Your task to perform on an android device: What's the news in the Philippines? Image 0: 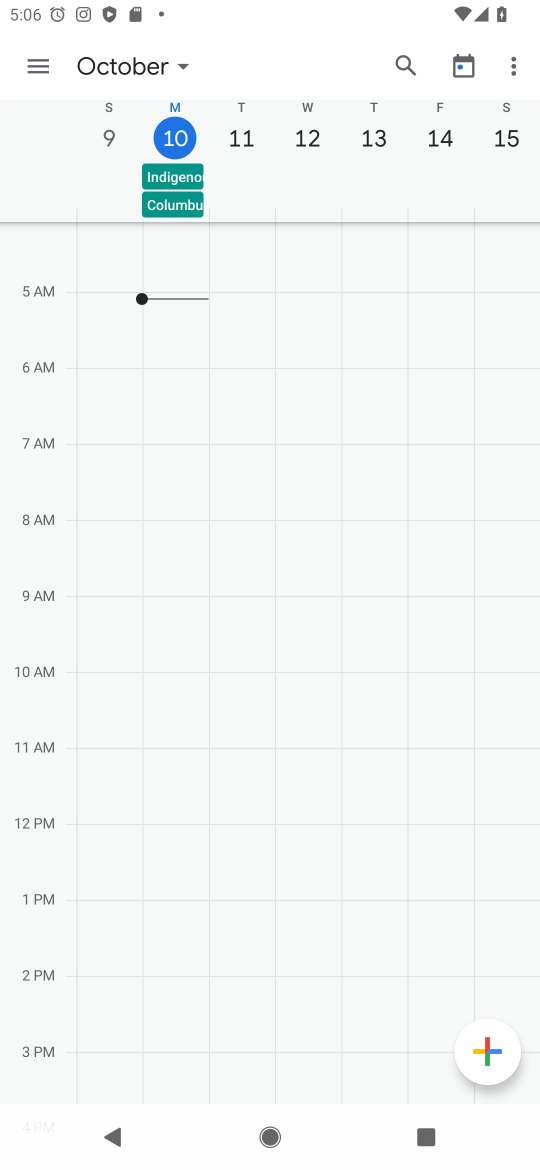
Step 0: press home button
Your task to perform on an android device: What's the news in the Philippines? Image 1: 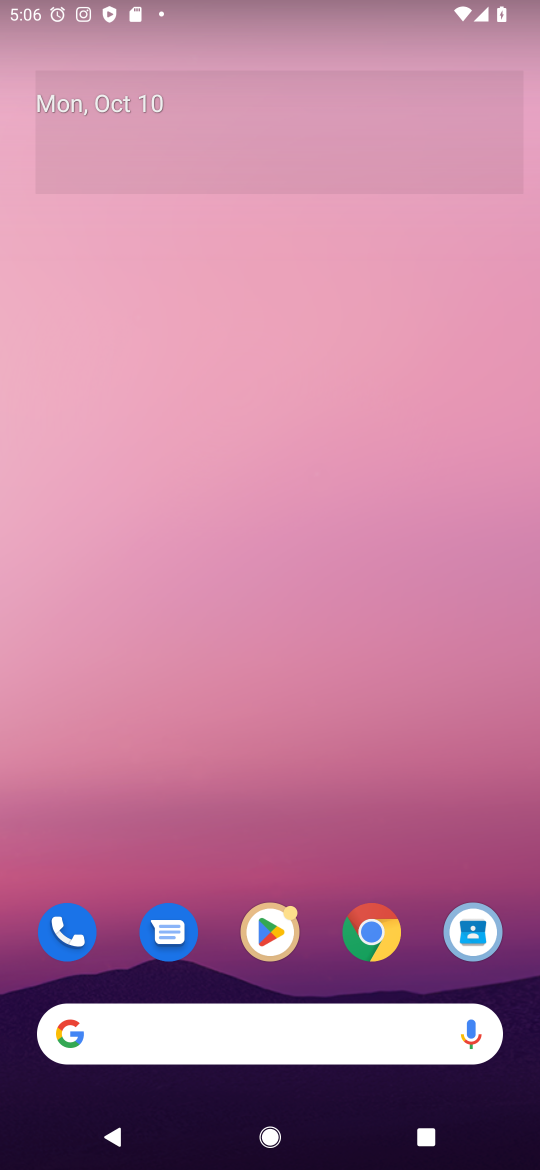
Step 1: click (303, 1036)
Your task to perform on an android device: What's the news in the Philippines? Image 2: 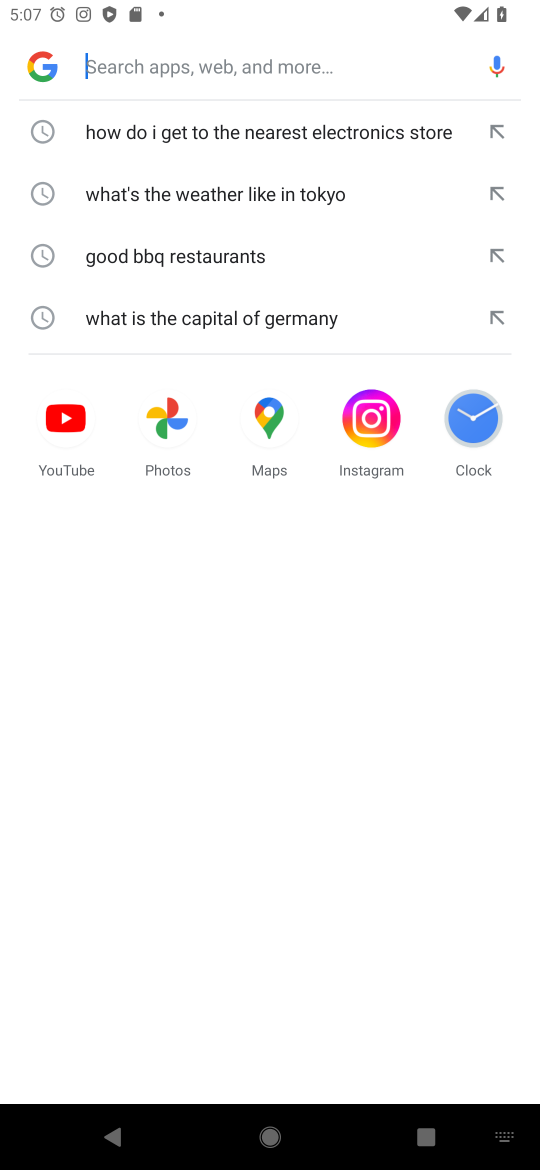
Step 2: type "What's the news in the Philippines"
Your task to perform on an android device: What's the news in the Philippines? Image 3: 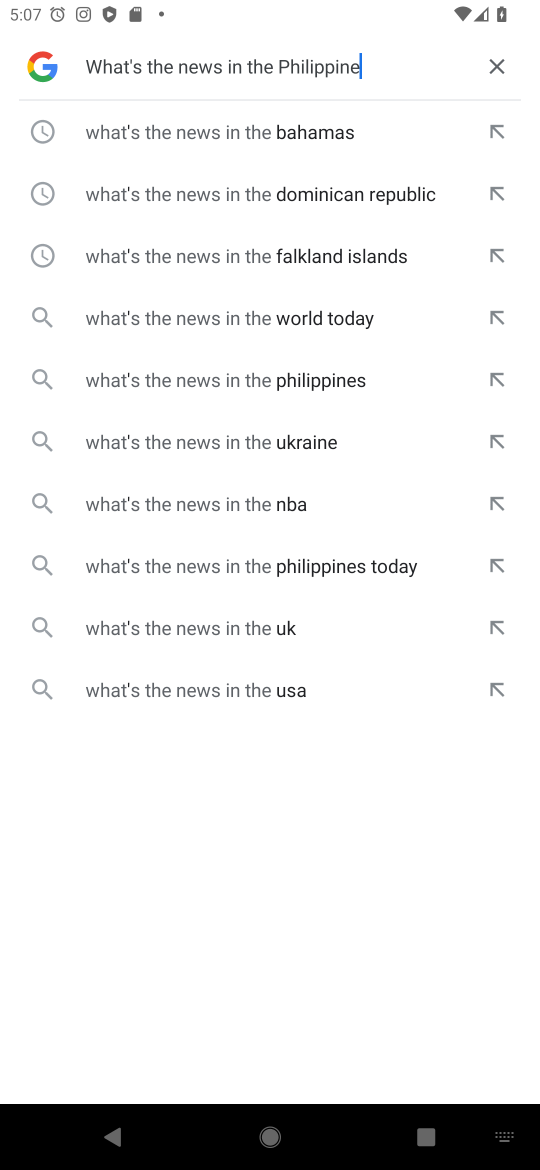
Step 3: press enter
Your task to perform on an android device: What's the news in the Philippines? Image 4: 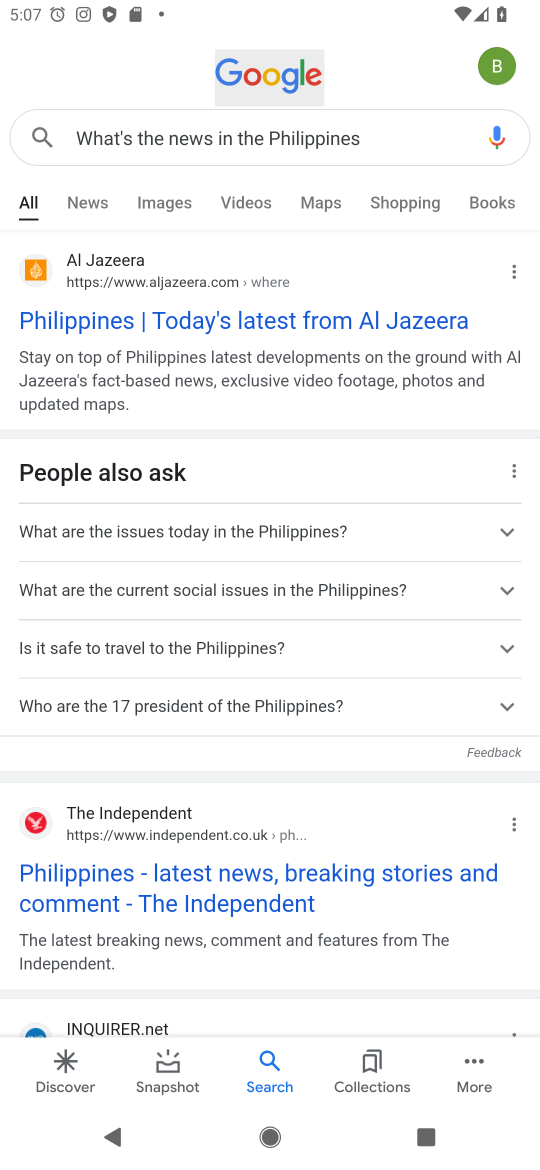
Step 4: click (284, 319)
Your task to perform on an android device: What's the news in the Philippines? Image 5: 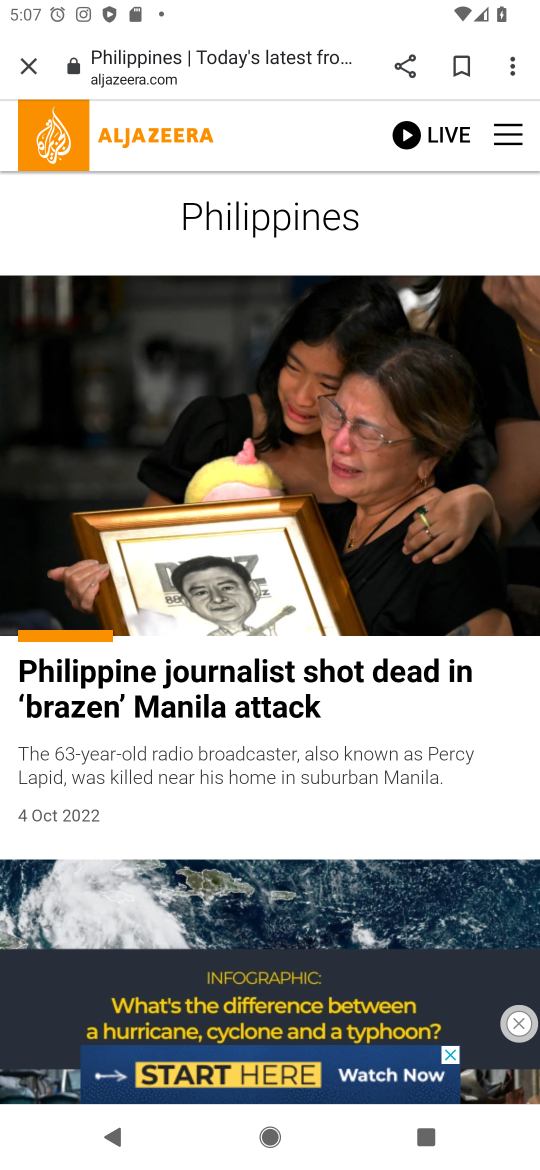
Step 5: task complete